Your task to perform on an android device: toggle javascript in the chrome app Image 0: 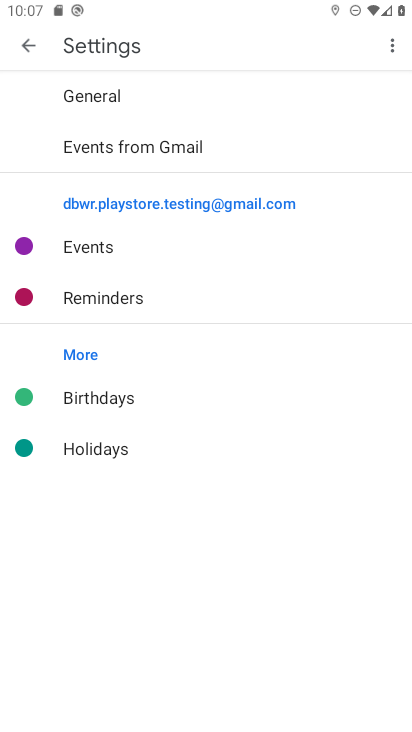
Step 0: press home button
Your task to perform on an android device: toggle javascript in the chrome app Image 1: 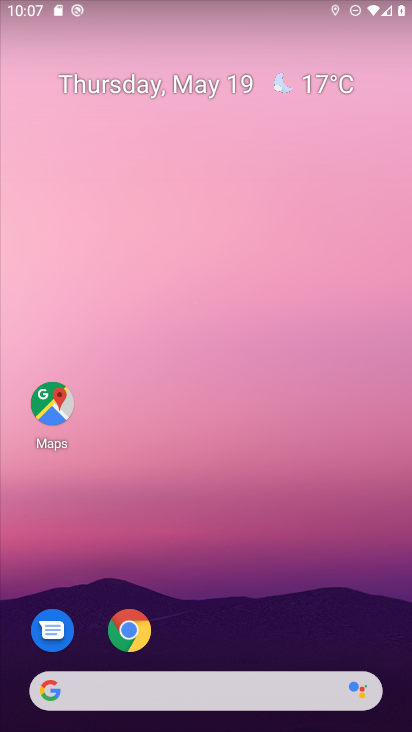
Step 1: click (130, 626)
Your task to perform on an android device: toggle javascript in the chrome app Image 2: 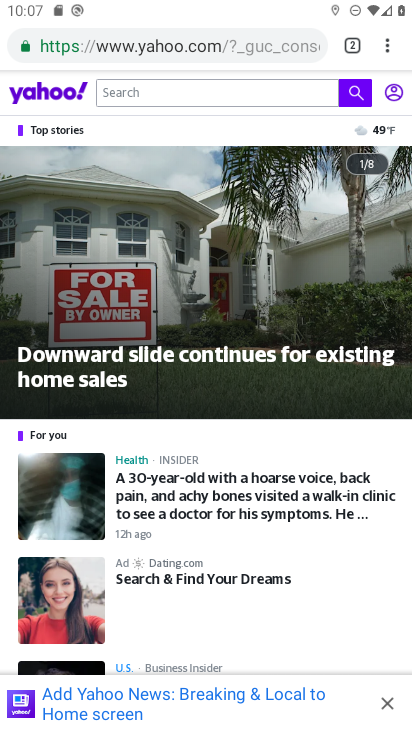
Step 2: click (387, 40)
Your task to perform on an android device: toggle javascript in the chrome app Image 3: 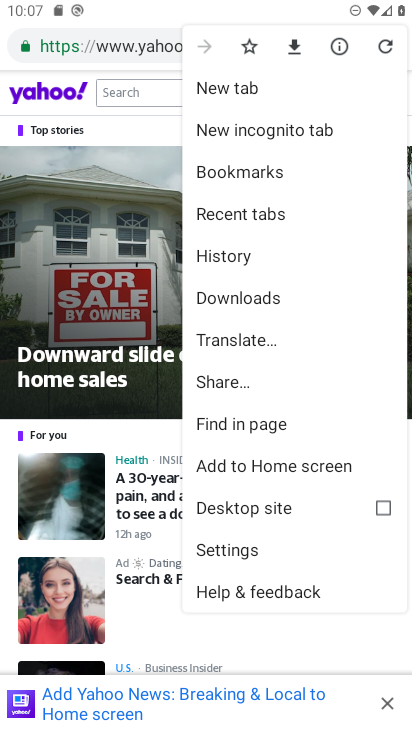
Step 3: click (245, 547)
Your task to perform on an android device: toggle javascript in the chrome app Image 4: 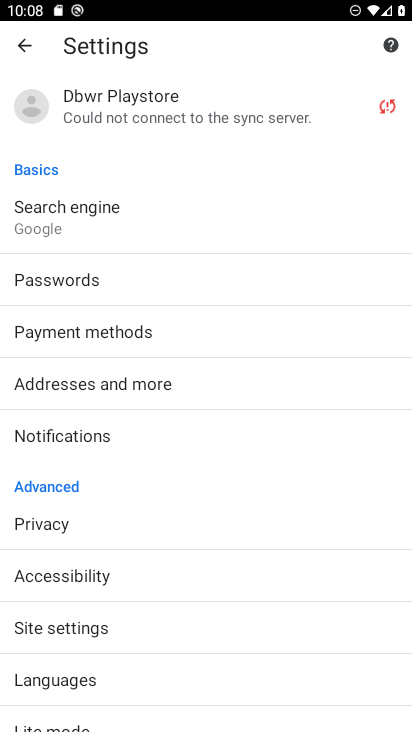
Step 4: drag from (188, 468) to (175, 100)
Your task to perform on an android device: toggle javascript in the chrome app Image 5: 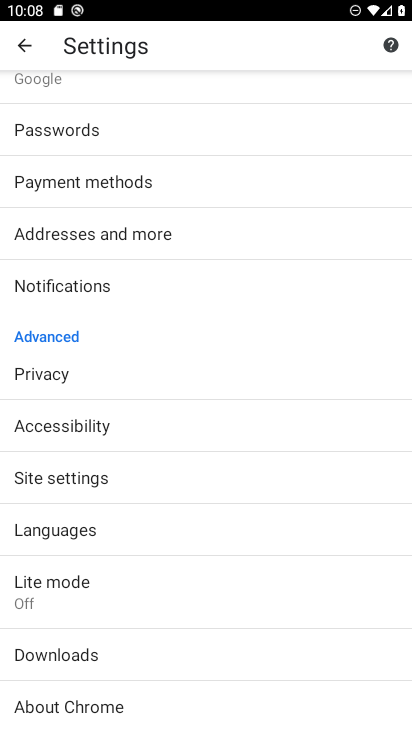
Step 5: click (80, 476)
Your task to perform on an android device: toggle javascript in the chrome app Image 6: 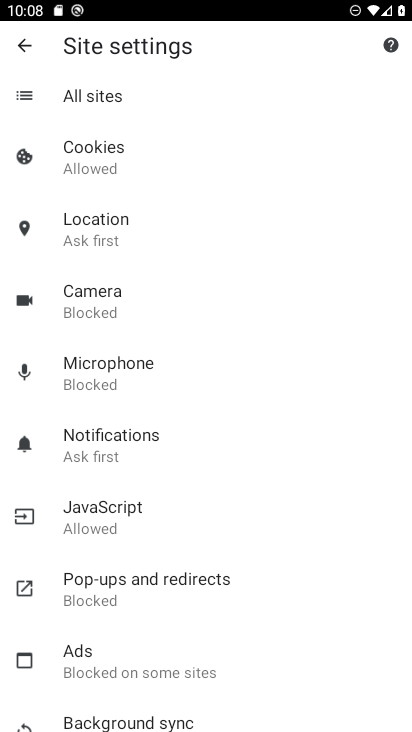
Step 6: click (104, 511)
Your task to perform on an android device: toggle javascript in the chrome app Image 7: 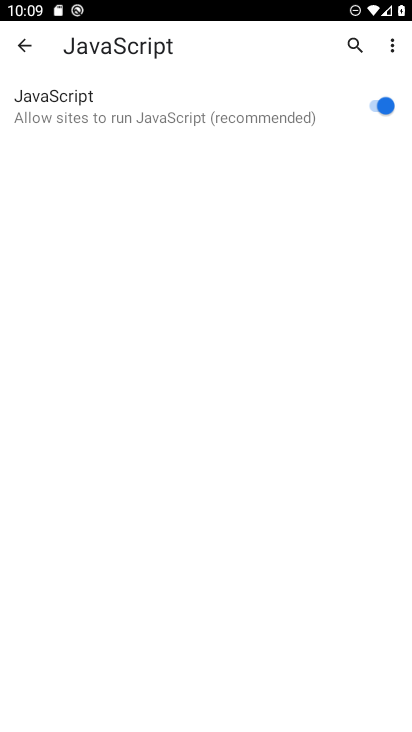
Step 7: click (388, 109)
Your task to perform on an android device: toggle javascript in the chrome app Image 8: 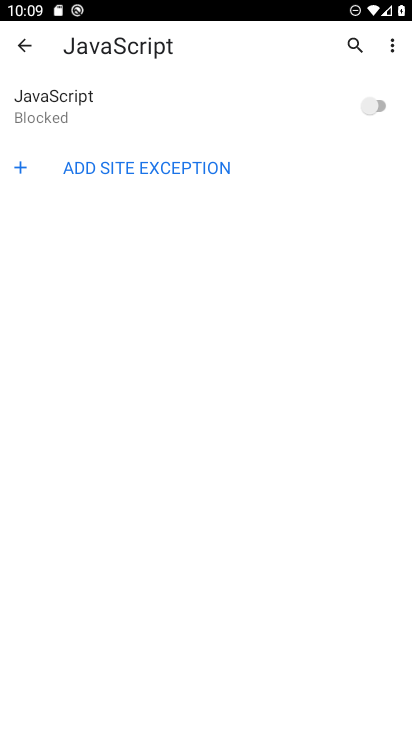
Step 8: task complete